Your task to perform on an android device: turn off data saver in the chrome app Image 0: 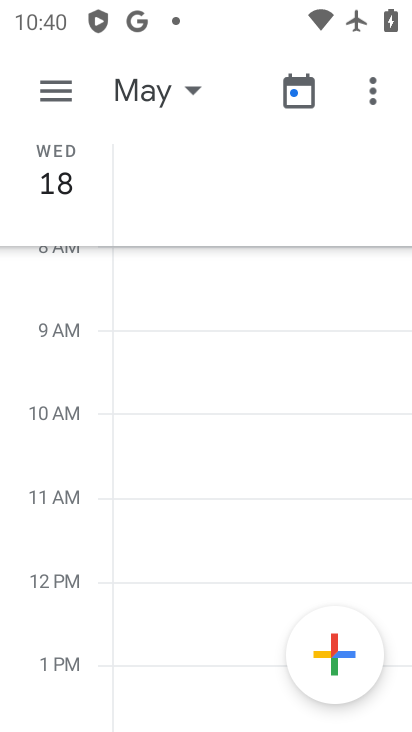
Step 0: press home button
Your task to perform on an android device: turn off data saver in the chrome app Image 1: 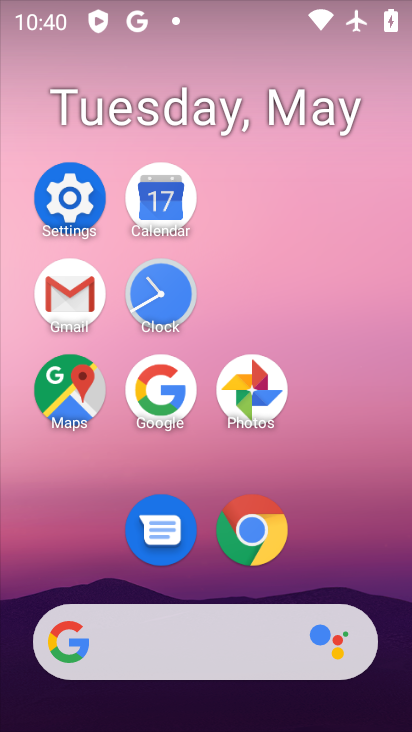
Step 1: click (239, 549)
Your task to perform on an android device: turn off data saver in the chrome app Image 2: 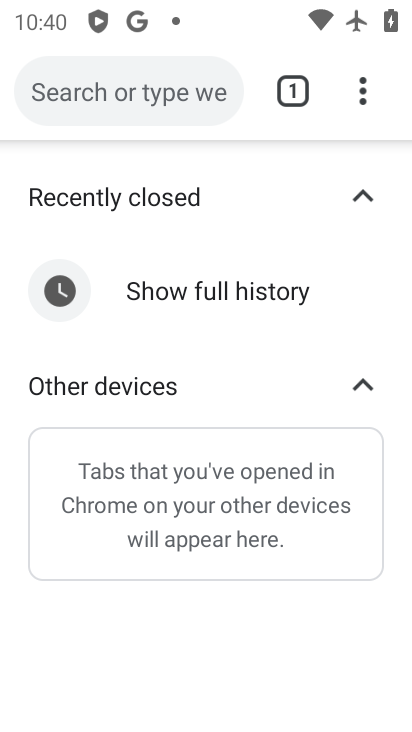
Step 2: click (370, 82)
Your task to perform on an android device: turn off data saver in the chrome app Image 3: 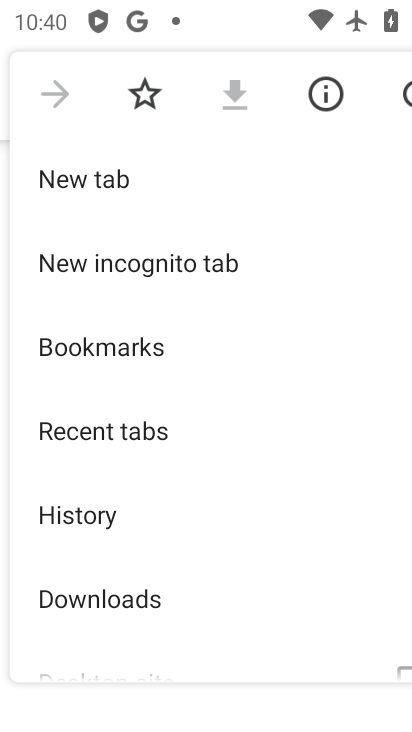
Step 3: drag from (246, 529) to (316, 106)
Your task to perform on an android device: turn off data saver in the chrome app Image 4: 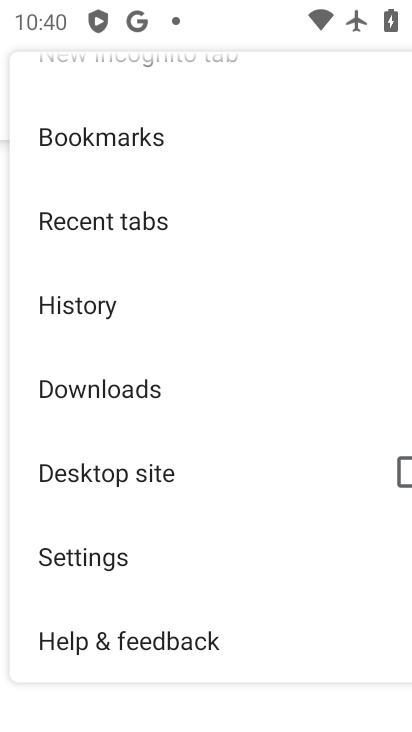
Step 4: click (138, 550)
Your task to perform on an android device: turn off data saver in the chrome app Image 5: 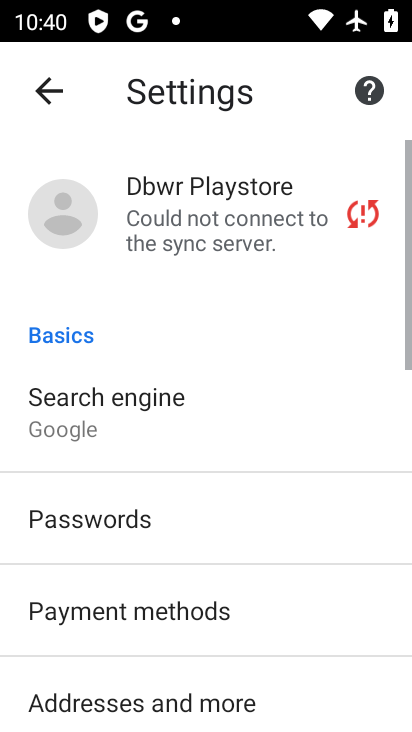
Step 5: drag from (155, 590) to (235, 192)
Your task to perform on an android device: turn off data saver in the chrome app Image 6: 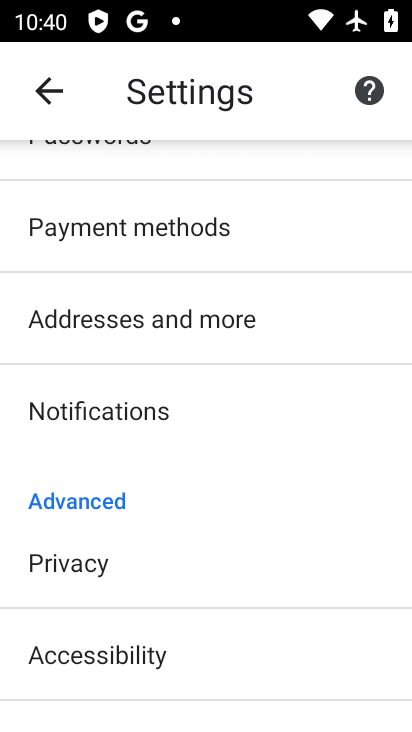
Step 6: drag from (153, 600) to (199, 230)
Your task to perform on an android device: turn off data saver in the chrome app Image 7: 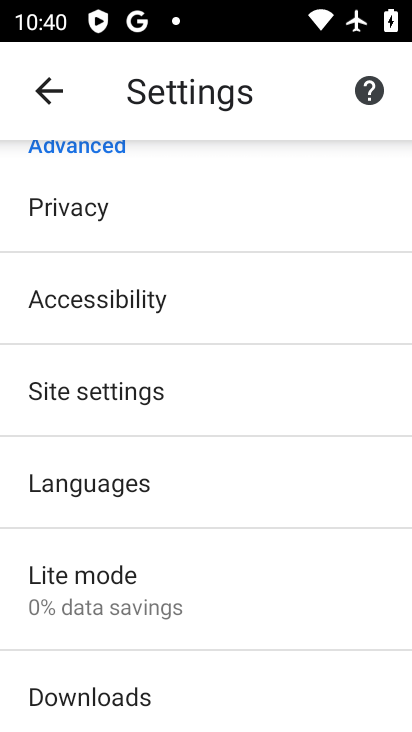
Step 7: click (188, 576)
Your task to perform on an android device: turn off data saver in the chrome app Image 8: 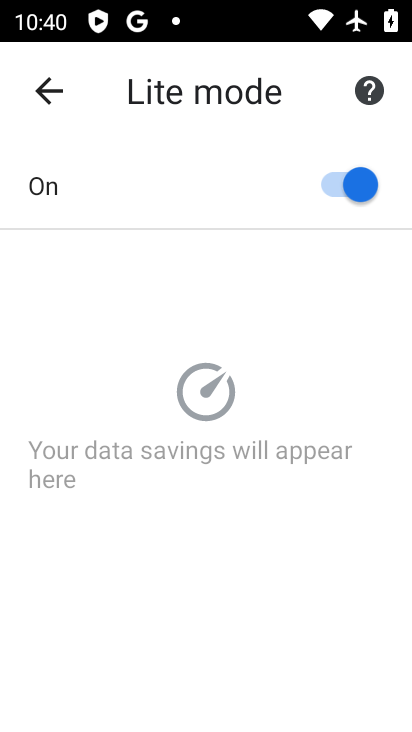
Step 8: click (349, 164)
Your task to perform on an android device: turn off data saver in the chrome app Image 9: 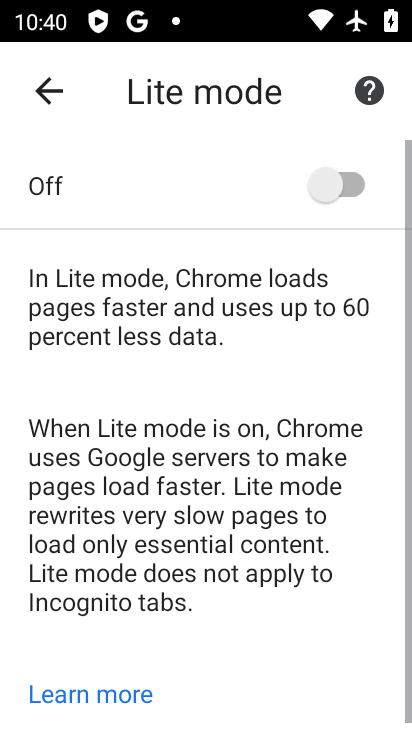
Step 9: task complete